Your task to perform on an android device: What's the weather today? Image 0: 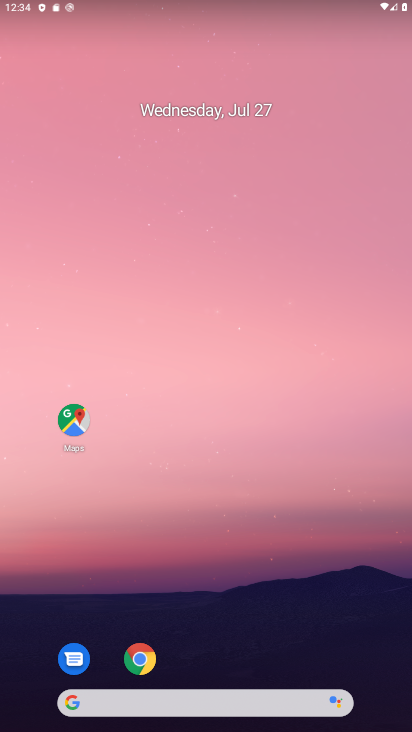
Step 0: click (137, 667)
Your task to perform on an android device: What's the weather today? Image 1: 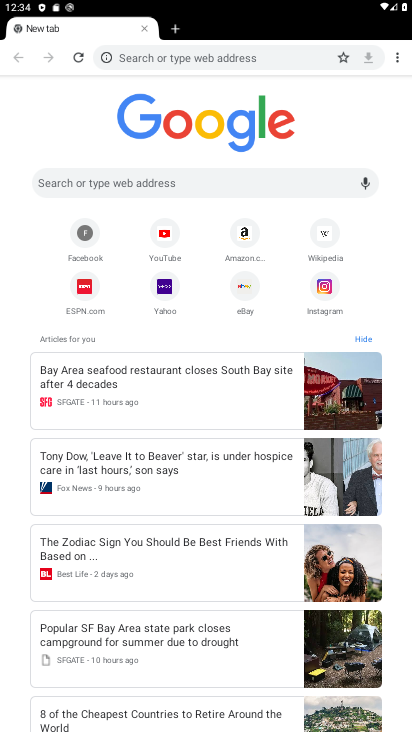
Step 1: click (271, 61)
Your task to perform on an android device: What's the weather today? Image 2: 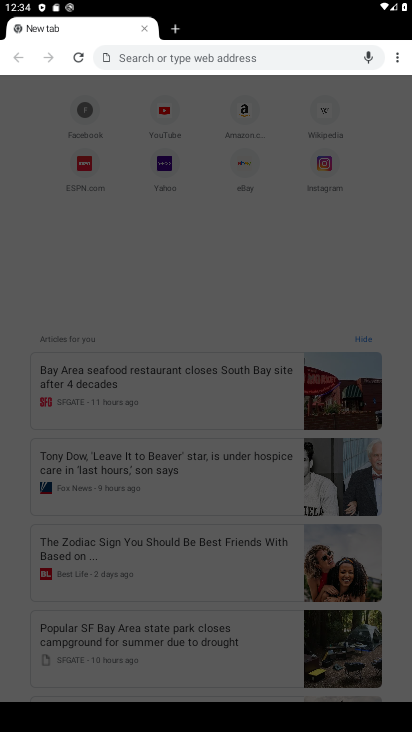
Step 2: type "What's the weather today?"
Your task to perform on an android device: What's the weather today? Image 3: 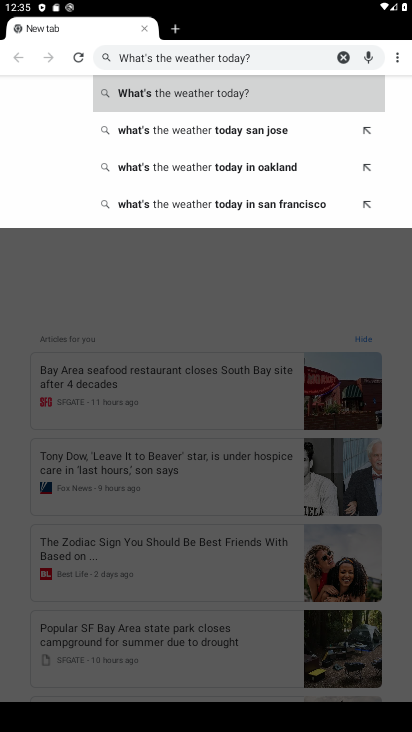
Step 3: click (272, 103)
Your task to perform on an android device: What's the weather today? Image 4: 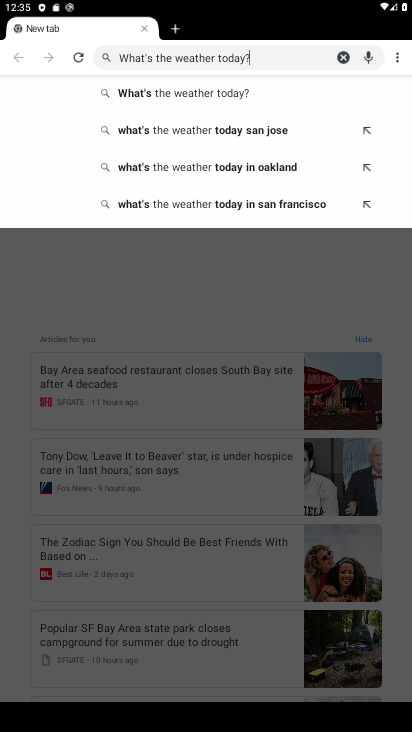
Step 4: click (203, 111)
Your task to perform on an android device: What's the weather today? Image 5: 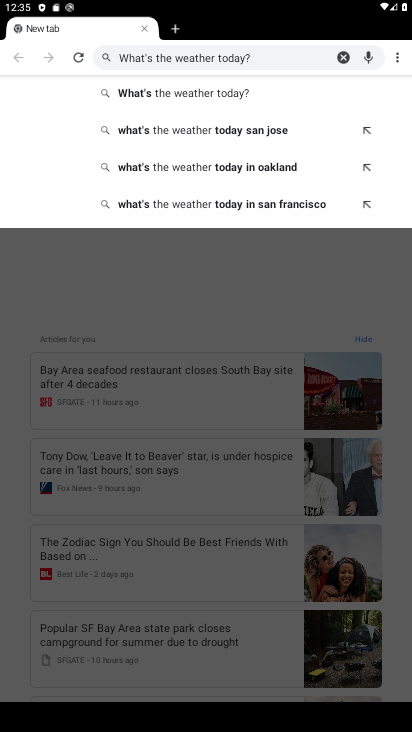
Step 5: click (217, 93)
Your task to perform on an android device: What's the weather today? Image 6: 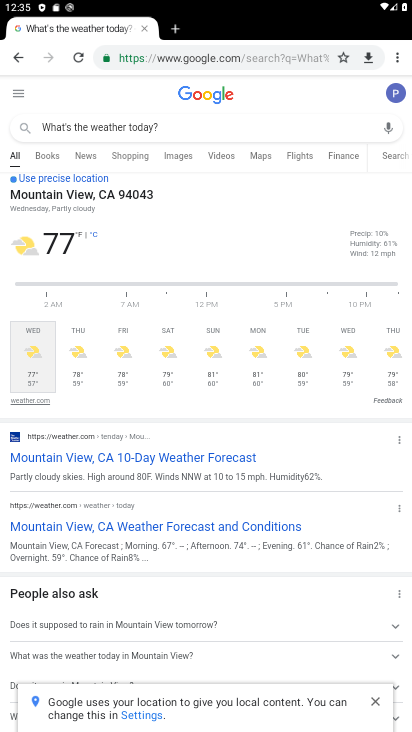
Step 6: task complete